Your task to perform on an android device: What's on my calendar tomorrow? Image 0: 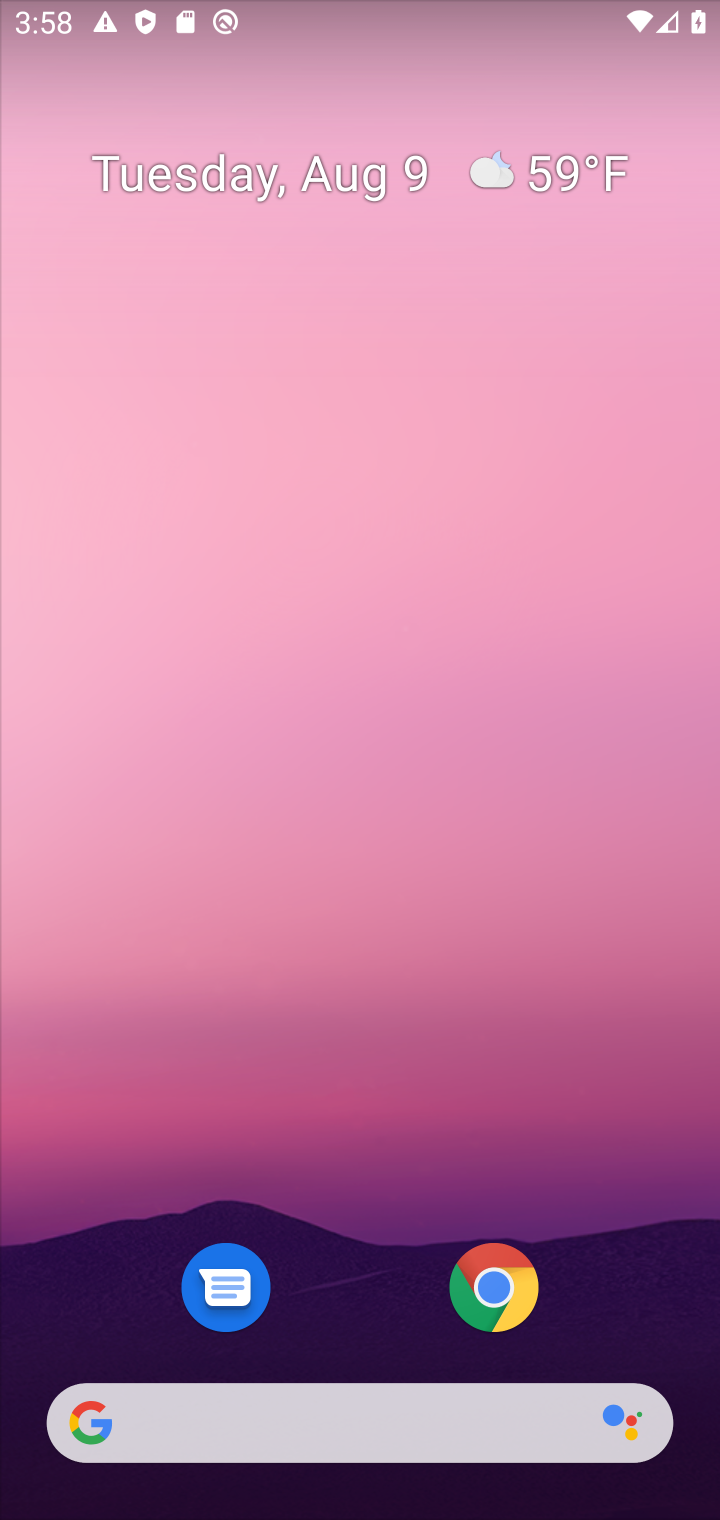
Step 0: drag from (345, 821) to (368, 385)
Your task to perform on an android device: What's on my calendar tomorrow? Image 1: 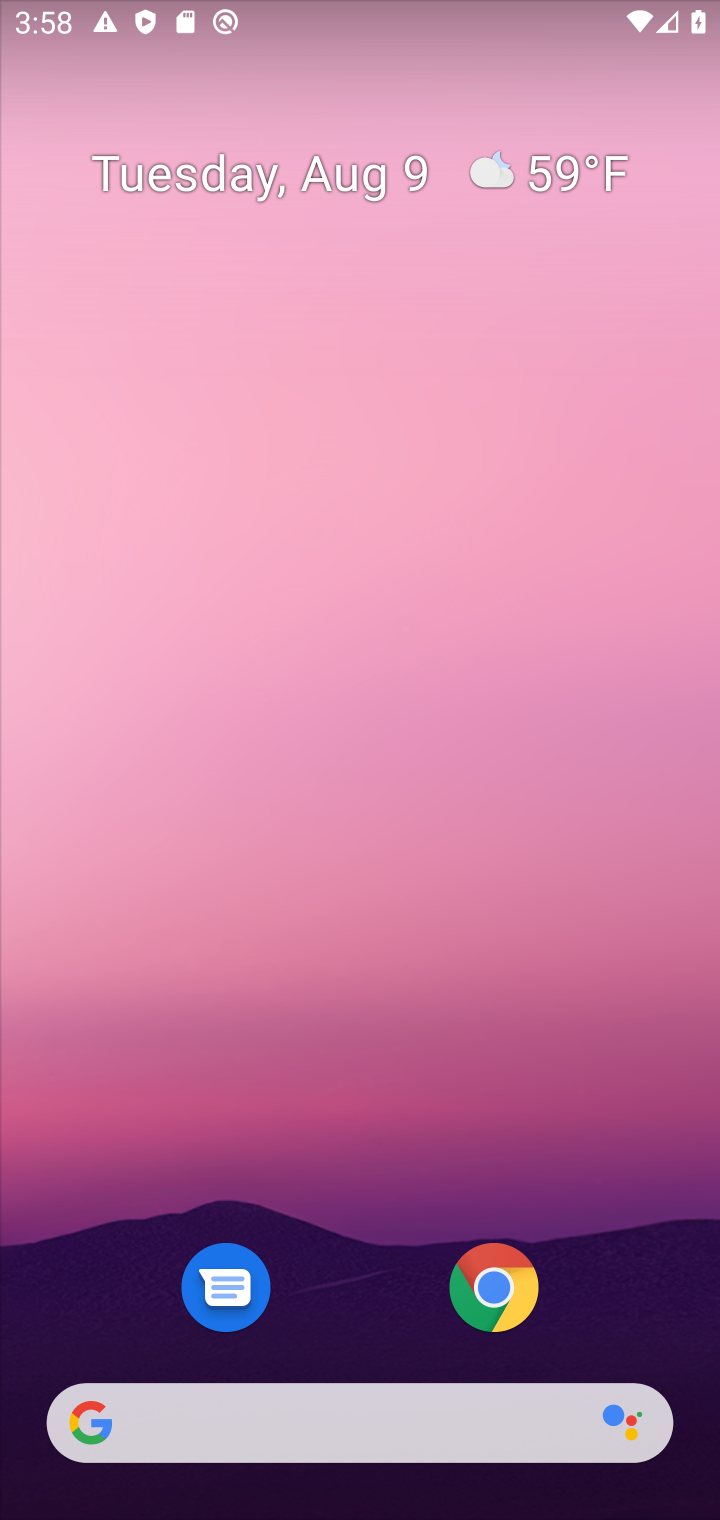
Step 1: drag from (372, 1237) to (386, 325)
Your task to perform on an android device: What's on my calendar tomorrow? Image 2: 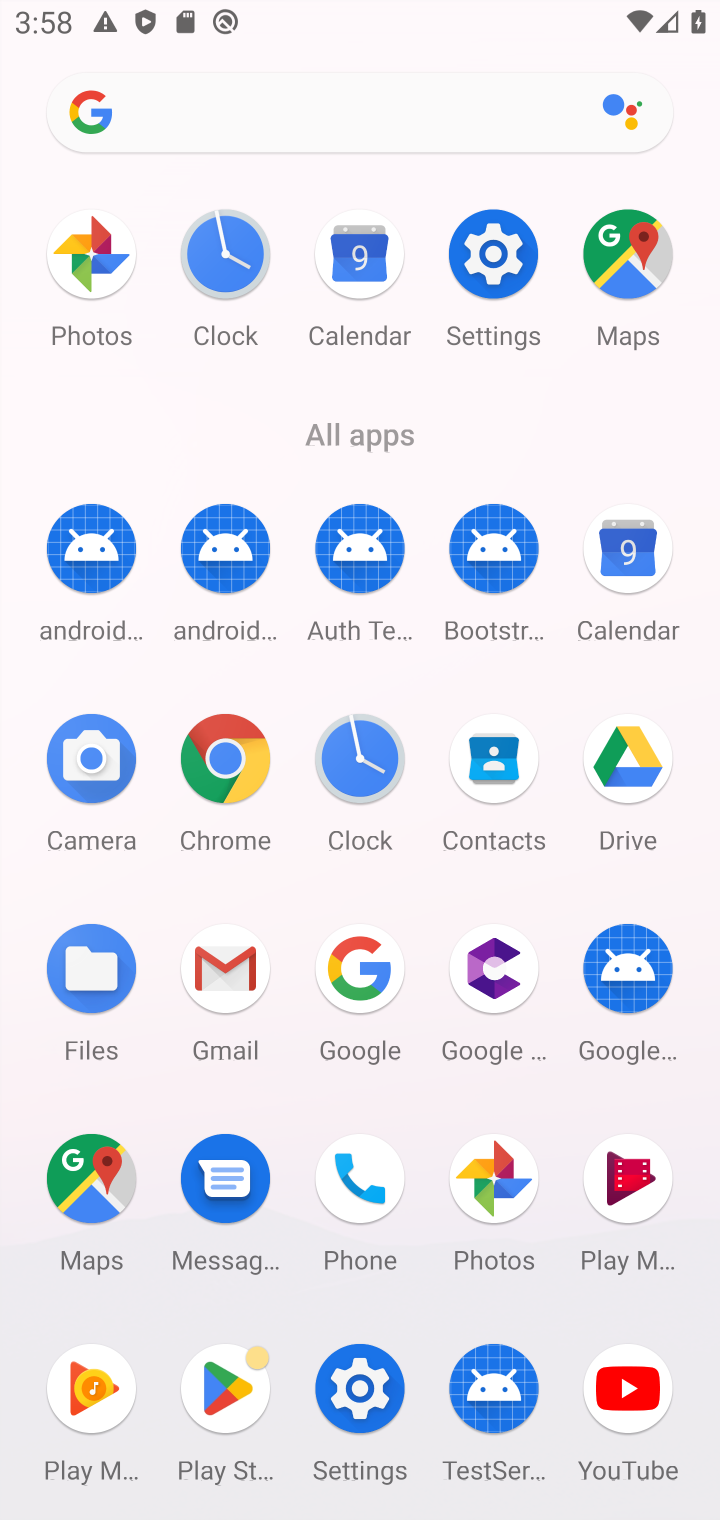
Step 2: click (606, 560)
Your task to perform on an android device: What's on my calendar tomorrow? Image 3: 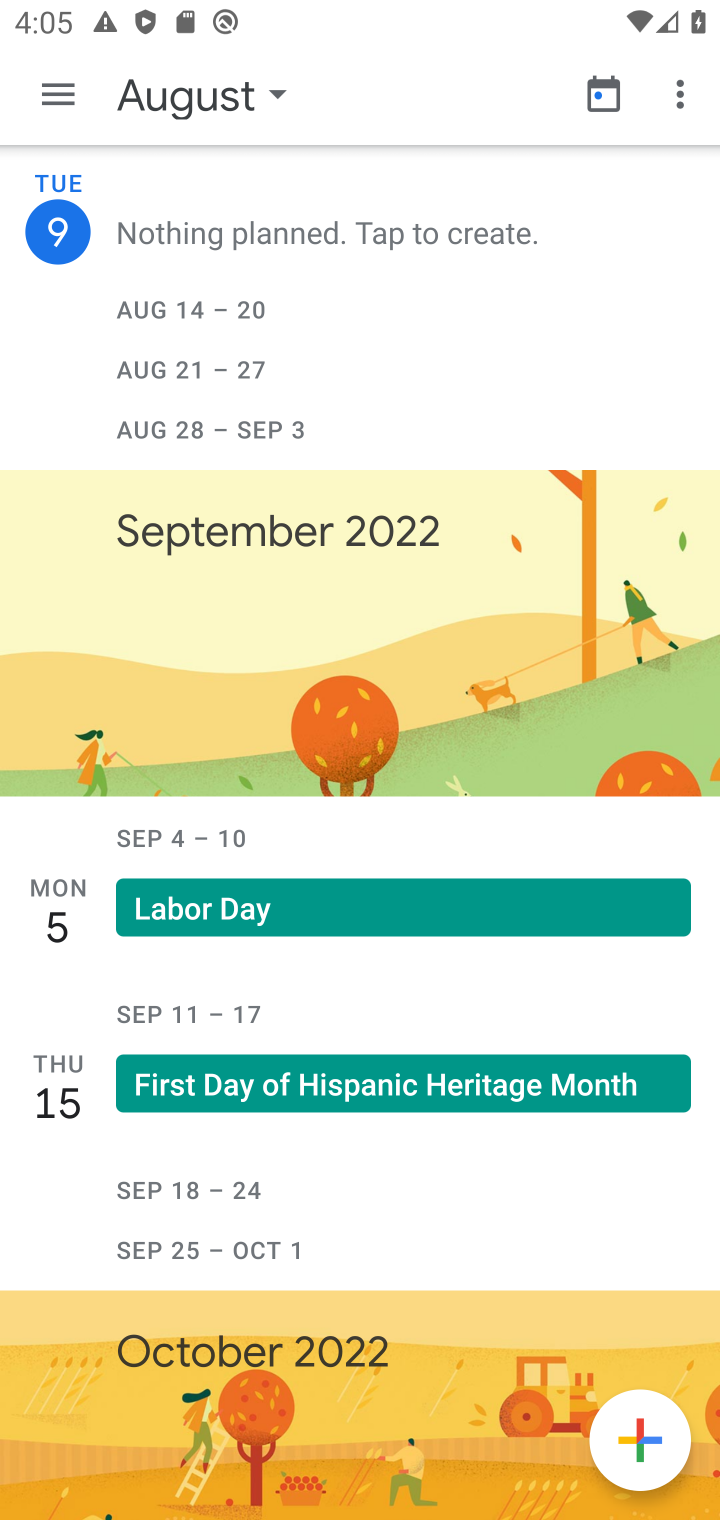
Step 3: press home button
Your task to perform on an android device: What's on my calendar tomorrow? Image 4: 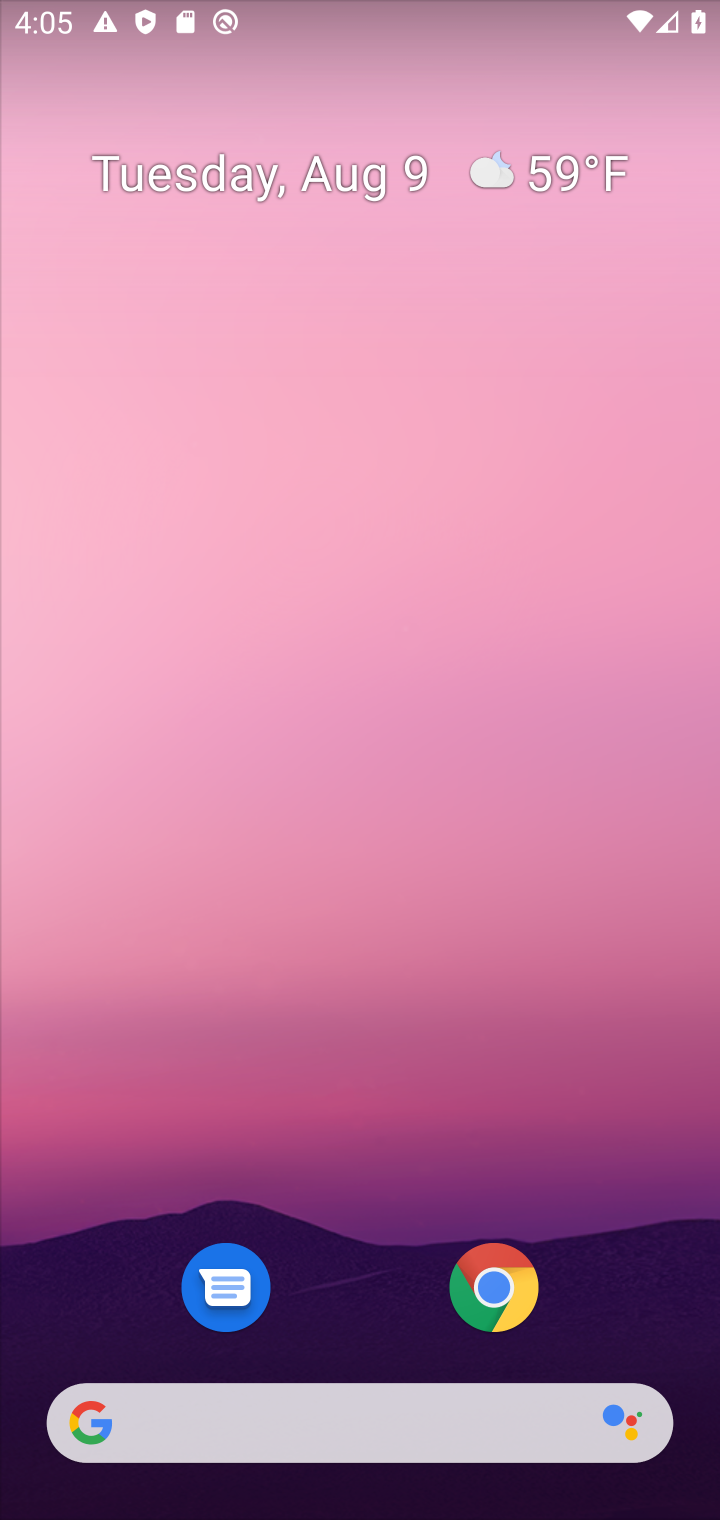
Step 4: drag from (334, 1070) to (368, 247)
Your task to perform on an android device: What's on my calendar tomorrow? Image 5: 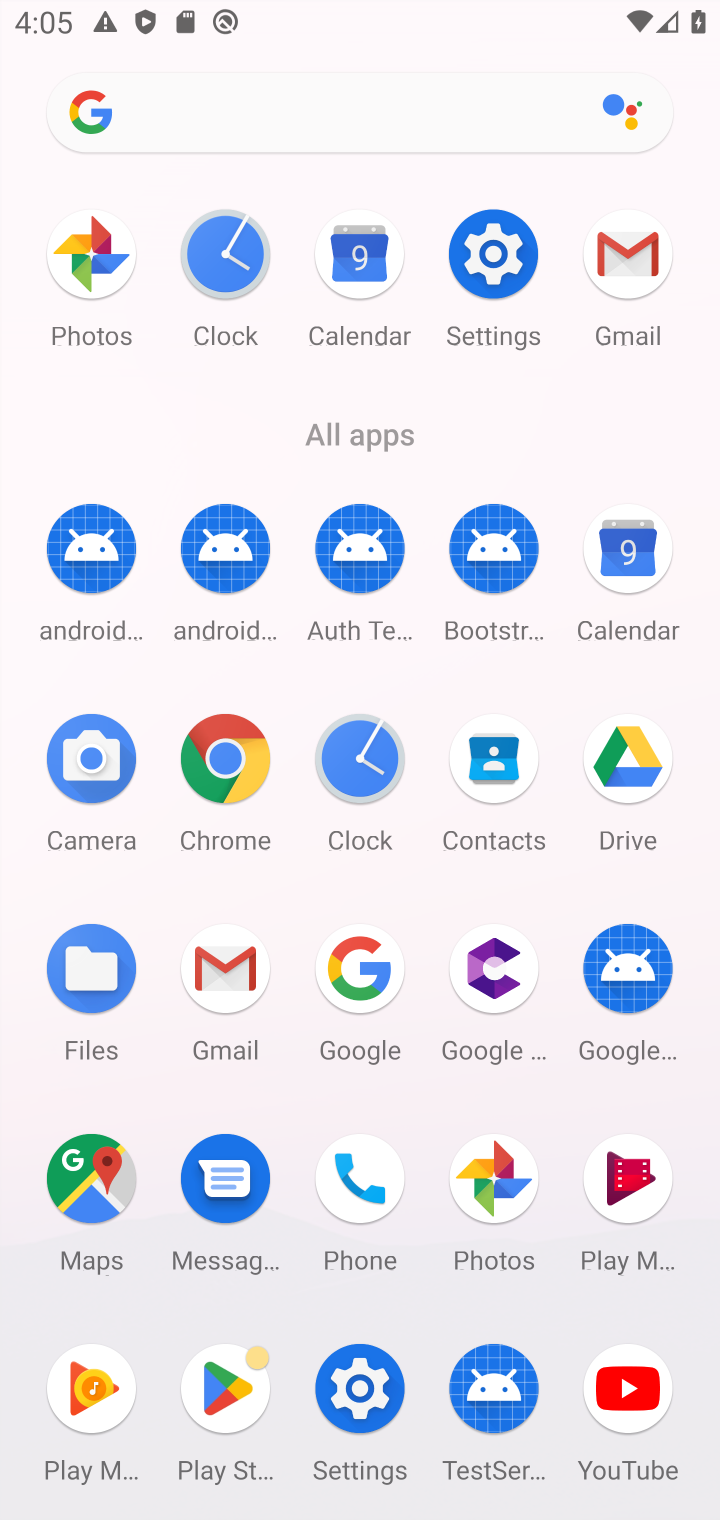
Step 5: click (364, 271)
Your task to perform on an android device: What's on my calendar tomorrow? Image 6: 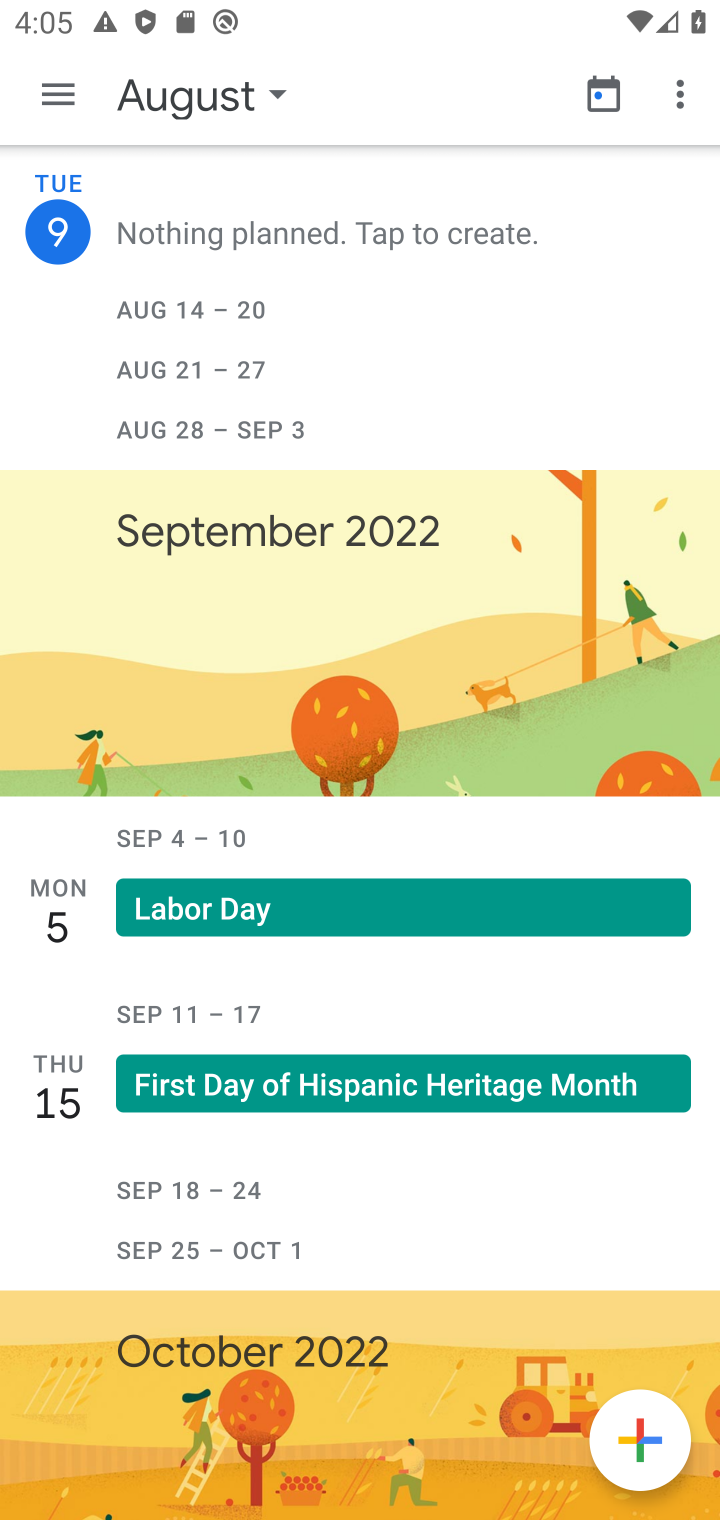
Step 6: task complete